Your task to perform on an android device: install app "Microsoft Authenticator" Image 0: 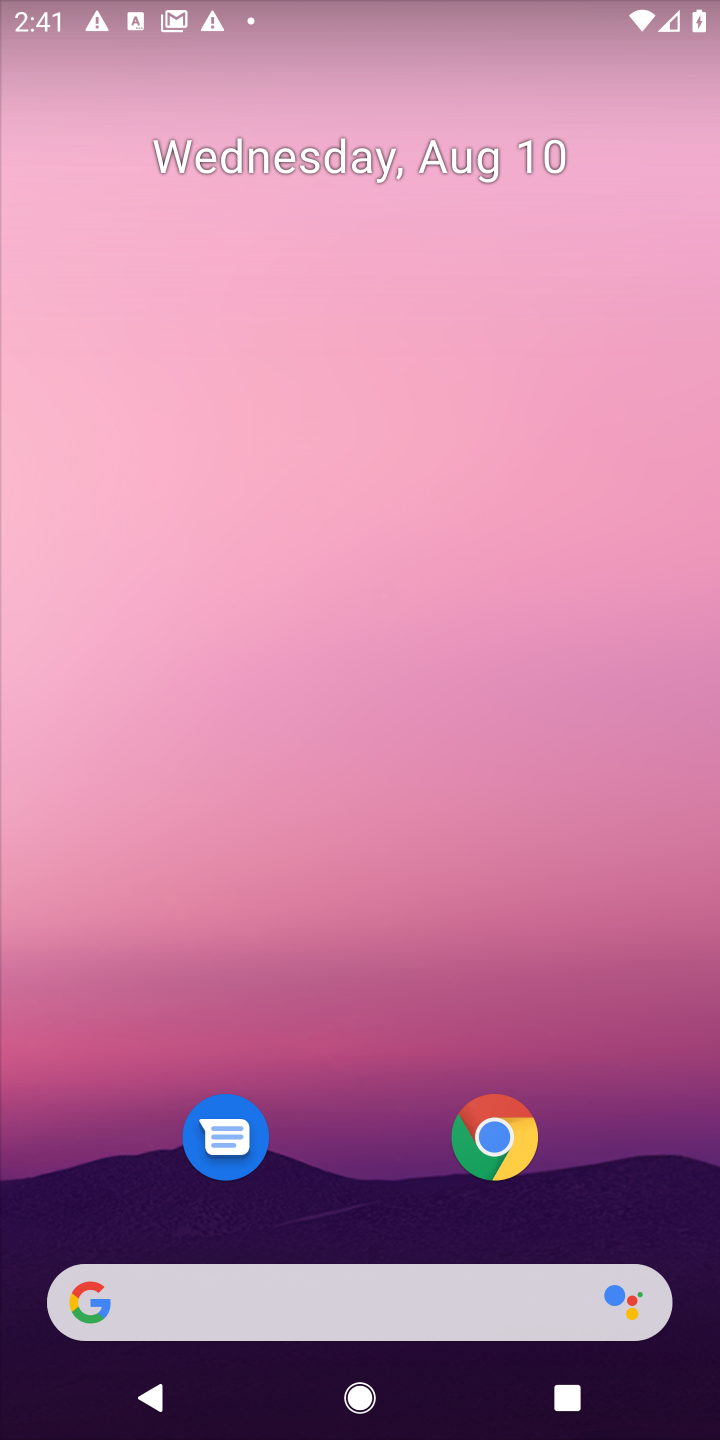
Step 0: drag from (357, 1206) to (422, 252)
Your task to perform on an android device: install app "Microsoft Authenticator" Image 1: 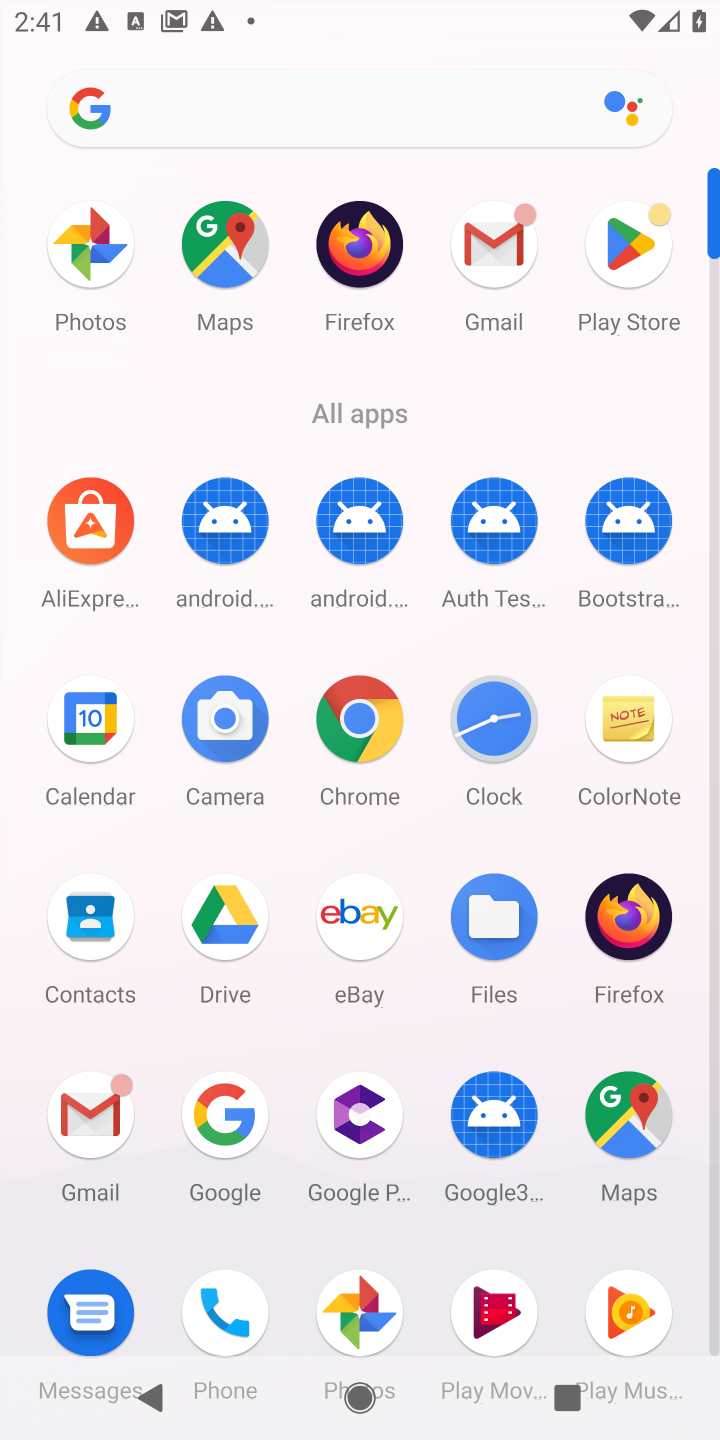
Step 1: drag from (299, 1132) to (310, 810)
Your task to perform on an android device: install app "Microsoft Authenticator" Image 2: 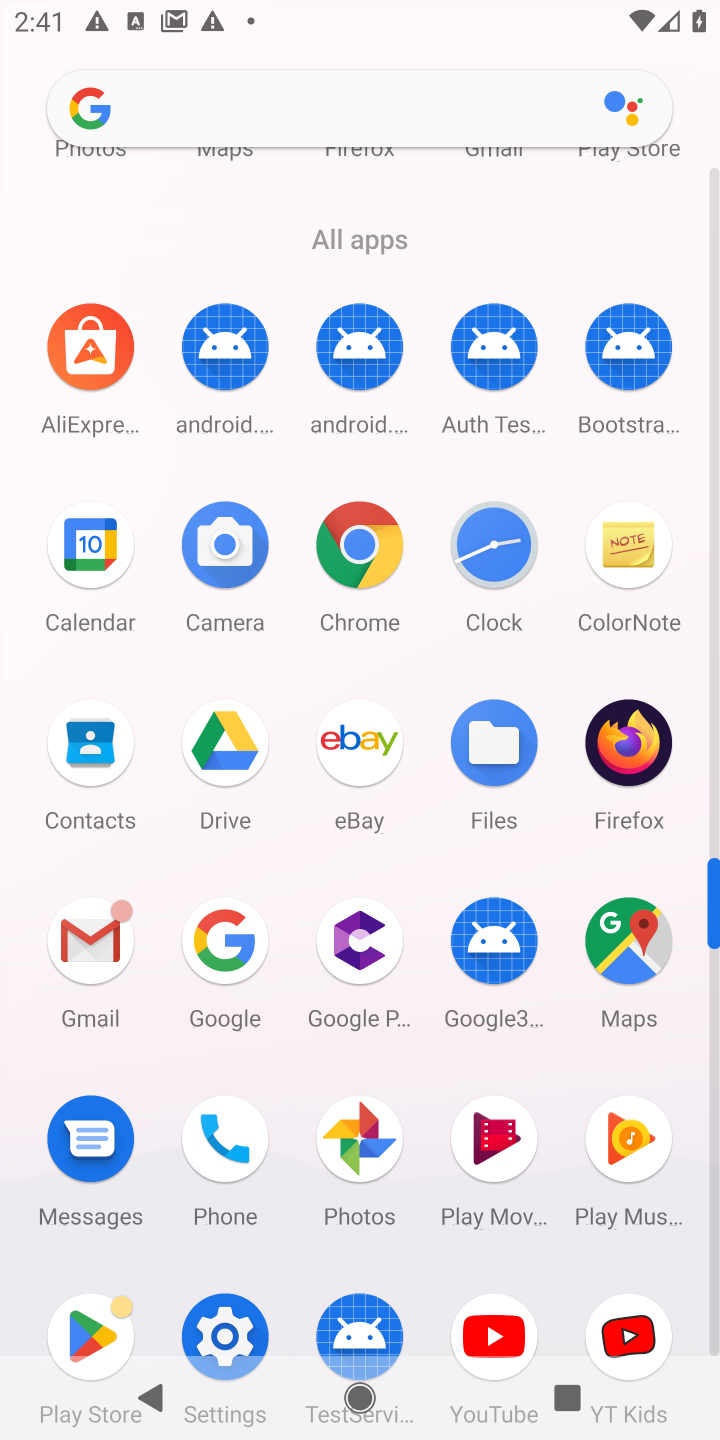
Step 2: click (94, 1325)
Your task to perform on an android device: install app "Microsoft Authenticator" Image 3: 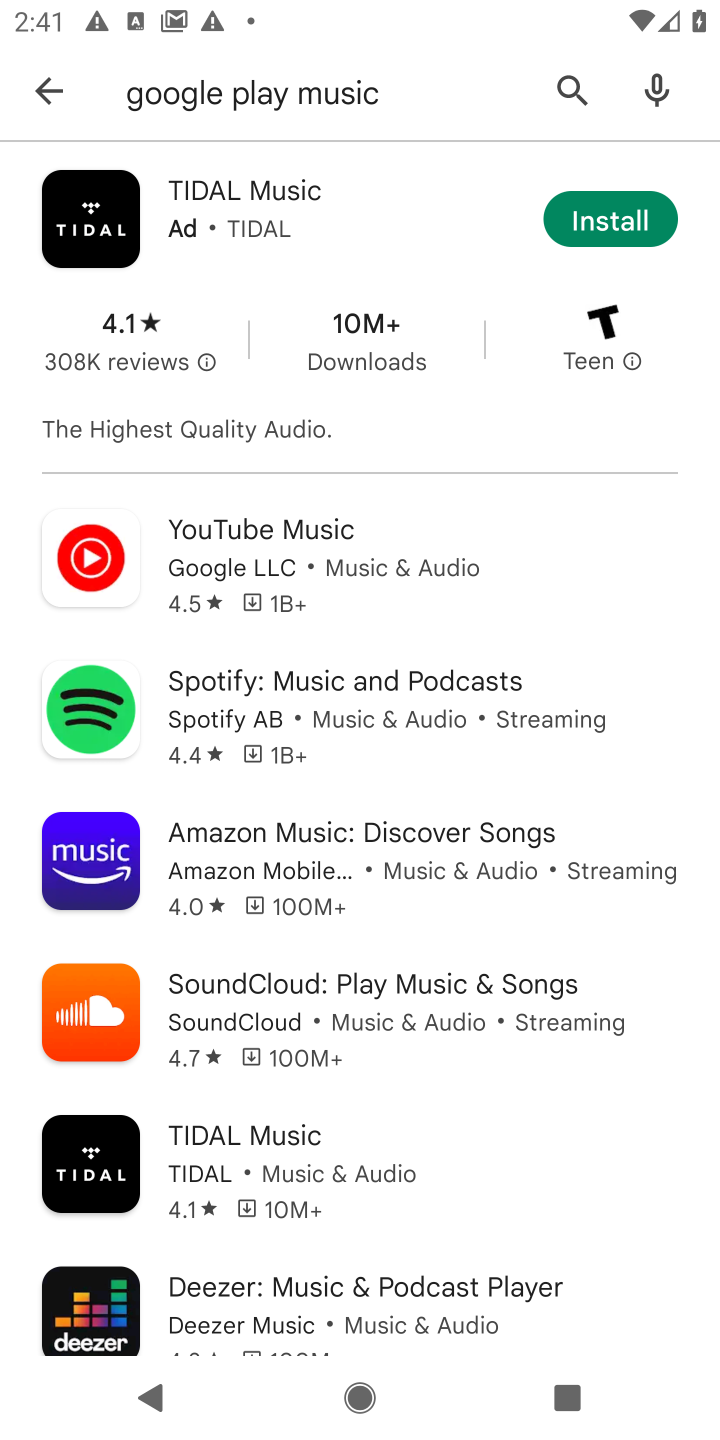
Step 3: click (359, 102)
Your task to perform on an android device: install app "Microsoft Authenticator" Image 4: 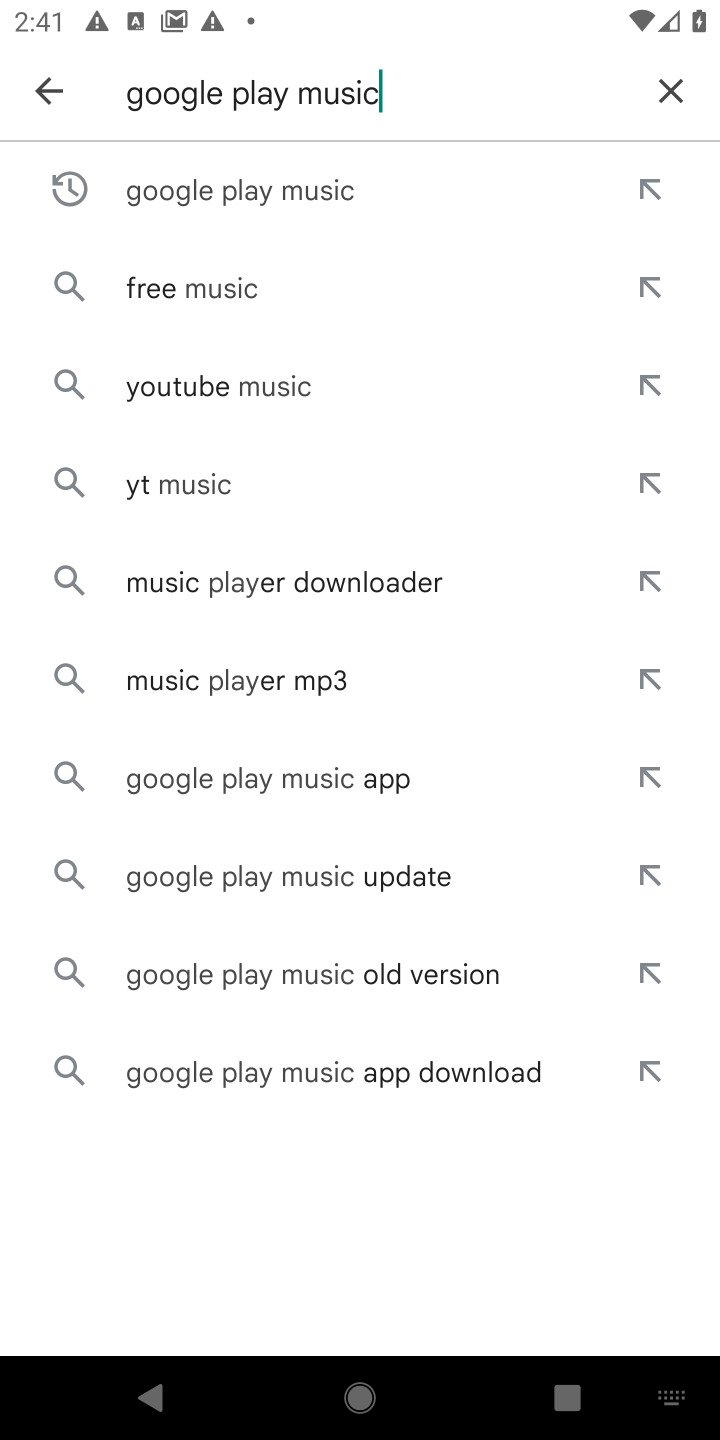
Step 4: click (677, 81)
Your task to perform on an android device: install app "Microsoft Authenticator" Image 5: 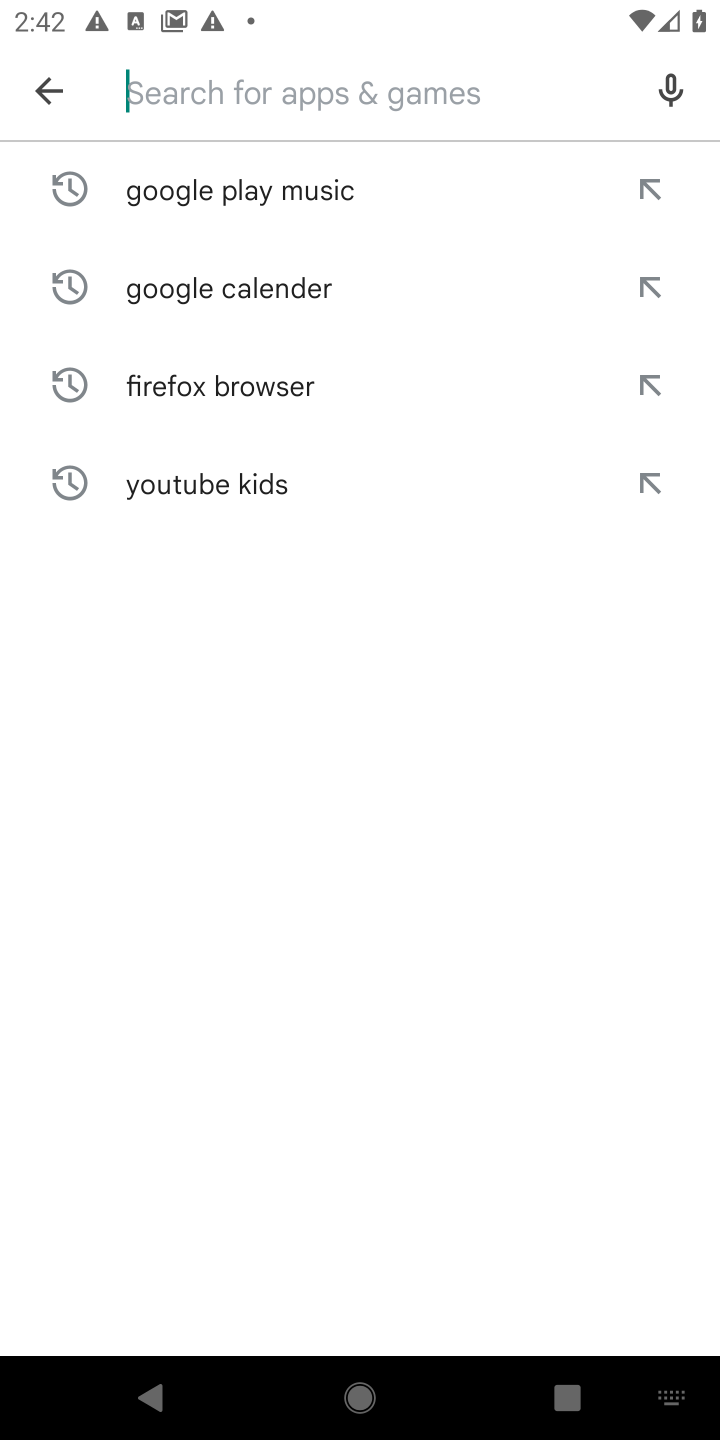
Step 5: type "microsoft authenticaor"
Your task to perform on an android device: install app "Microsoft Authenticator" Image 6: 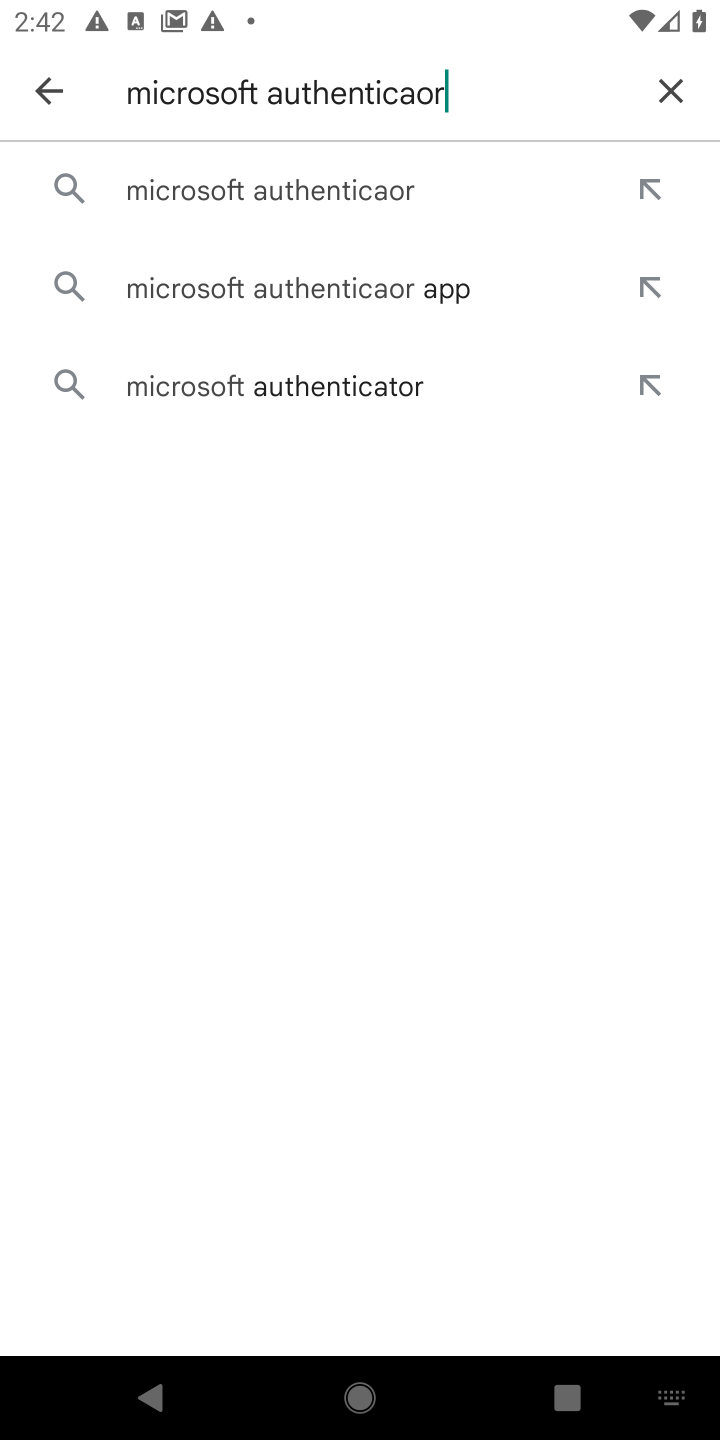
Step 6: click (355, 194)
Your task to perform on an android device: install app "Microsoft Authenticator" Image 7: 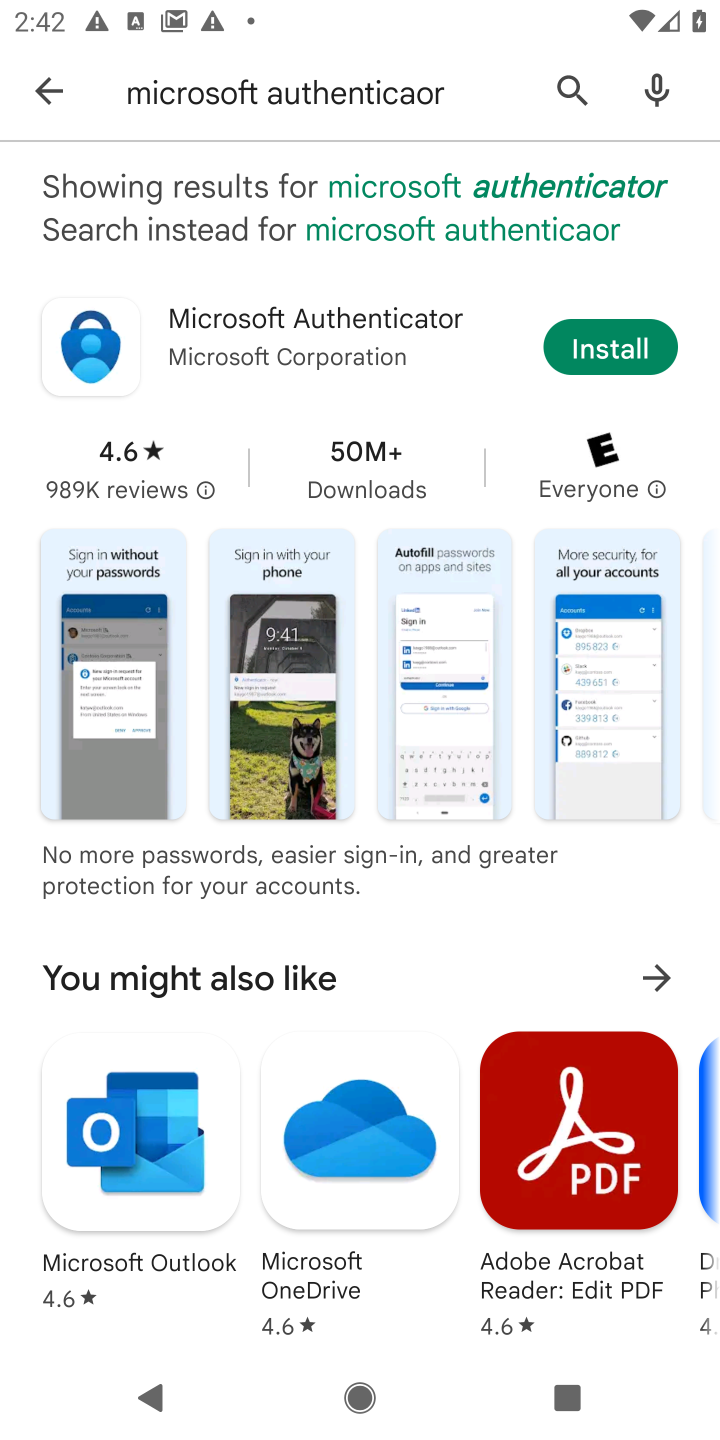
Step 7: click (619, 343)
Your task to perform on an android device: install app "Microsoft Authenticator" Image 8: 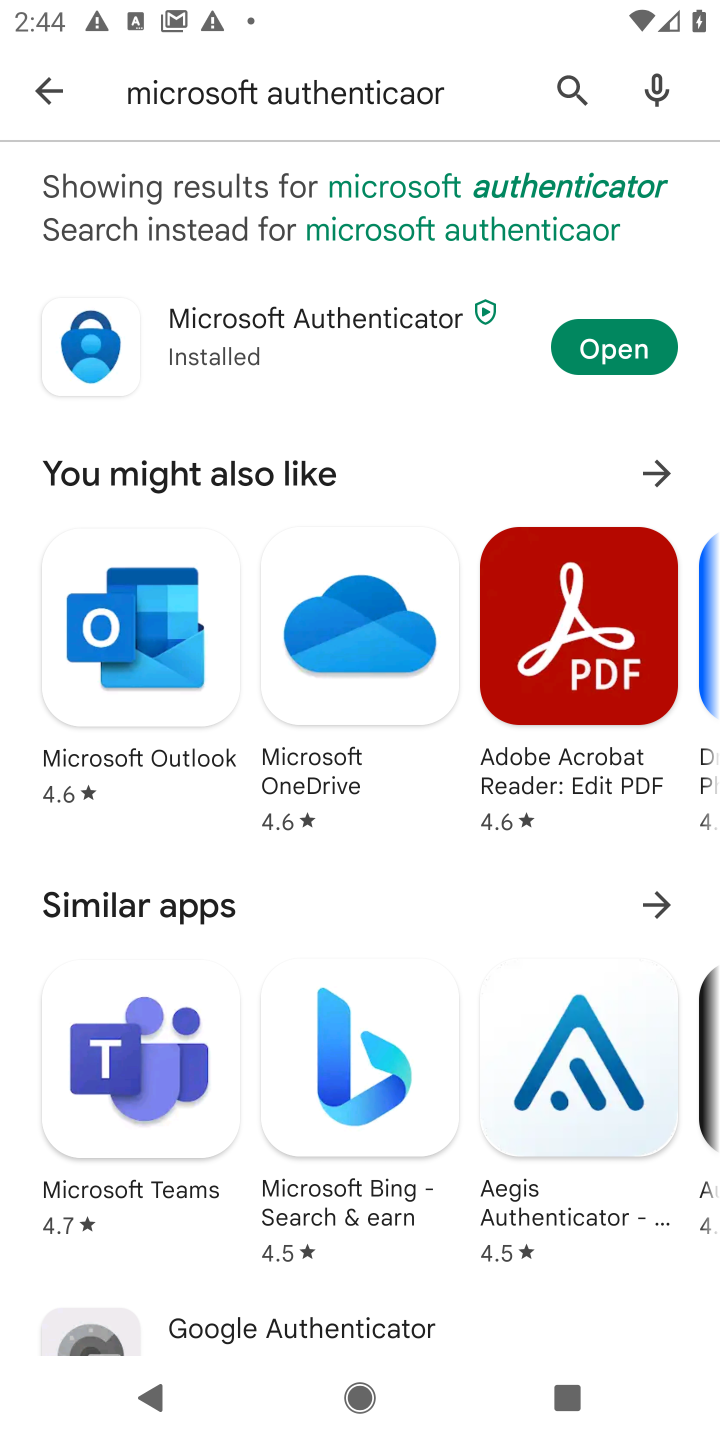
Step 8: task complete